Your task to perform on an android device: Search for seafood restaurants on Google Maps Image 0: 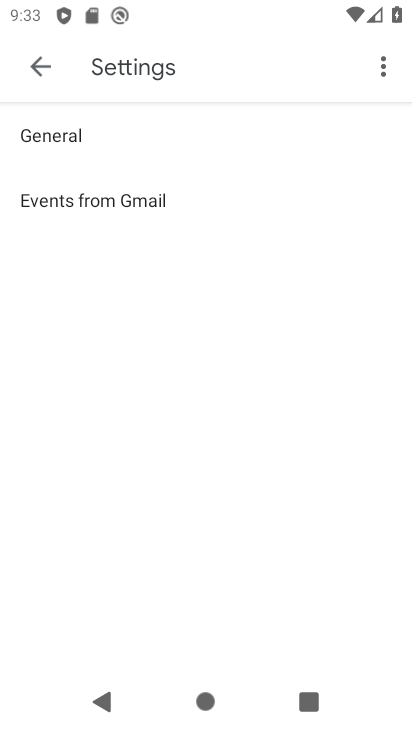
Step 0: press home button
Your task to perform on an android device: Search for seafood restaurants on Google Maps Image 1: 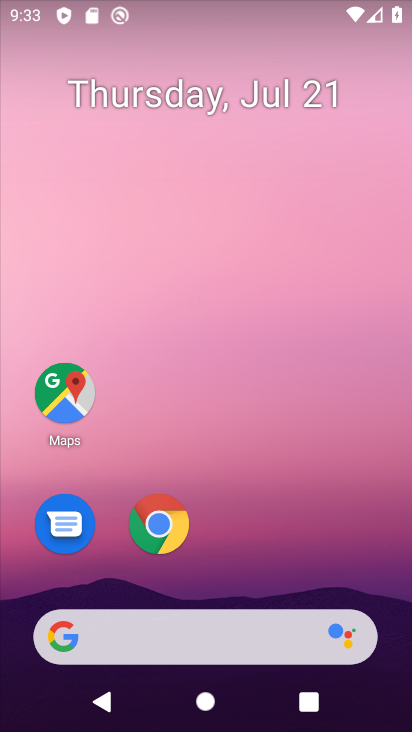
Step 1: click (53, 396)
Your task to perform on an android device: Search for seafood restaurants on Google Maps Image 2: 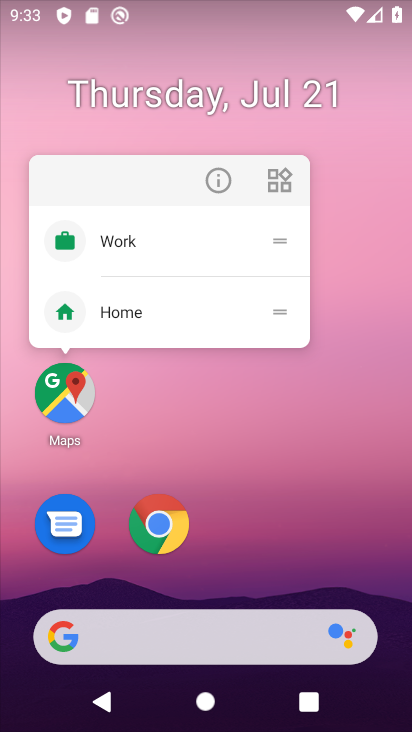
Step 2: click (54, 396)
Your task to perform on an android device: Search for seafood restaurants on Google Maps Image 3: 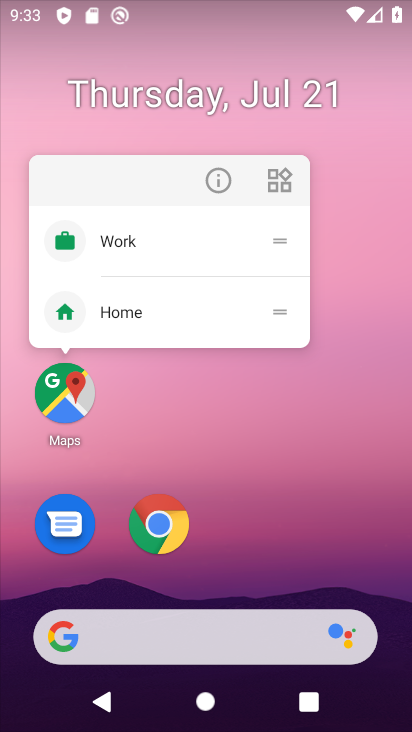
Step 3: click (61, 386)
Your task to perform on an android device: Search for seafood restaurants on Google Maps Image 4: 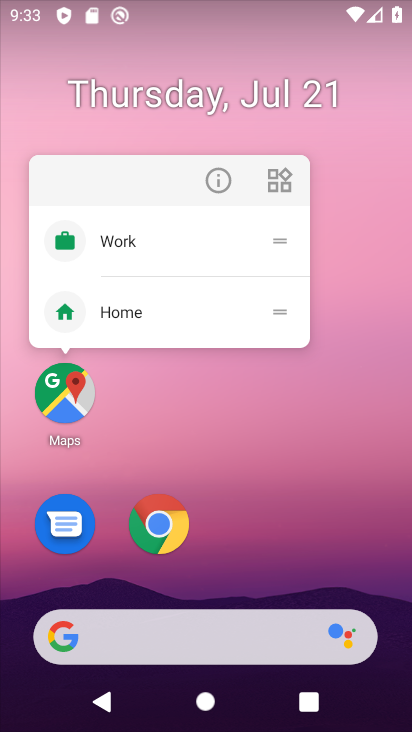
Step 4: click (60, 393)
Your task to perform on an android device: Search for seafood restaurants on Google Maps Image 5: 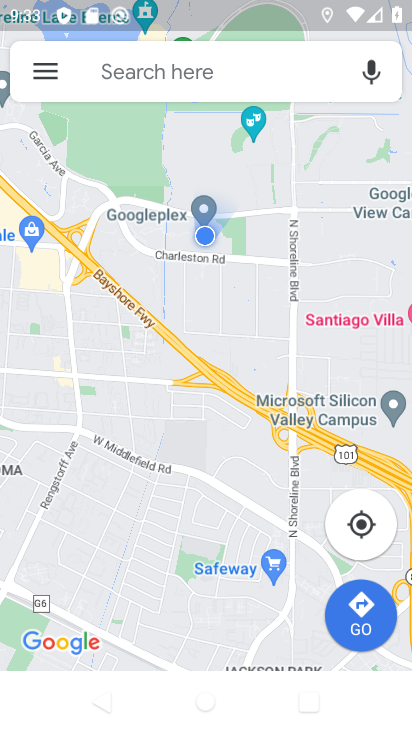
Step 5: click (201, 59)
Your task to perform on an android device: Search for seafood restaurants on Google Maps Image 6: 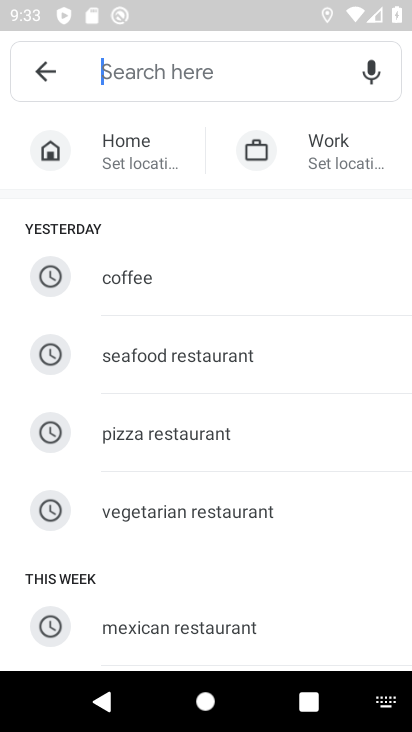
Step 6: click (188, 358)
Your task to perform on an android device: Search for seafood restaurants on Google Maps Image 7: 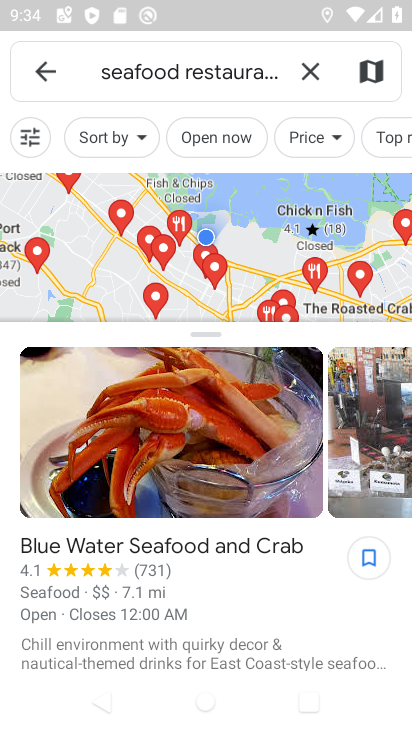
Step 7: task complete